Your task to perform on an android device: toggle translation in the chrome app Image 0: 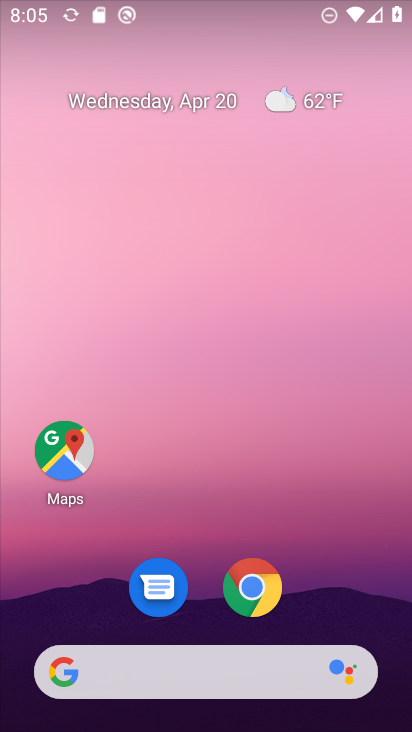
Step 0: click (250, 587)
Your task to perform on an android device: toggle translation in the chrome app Image 1: 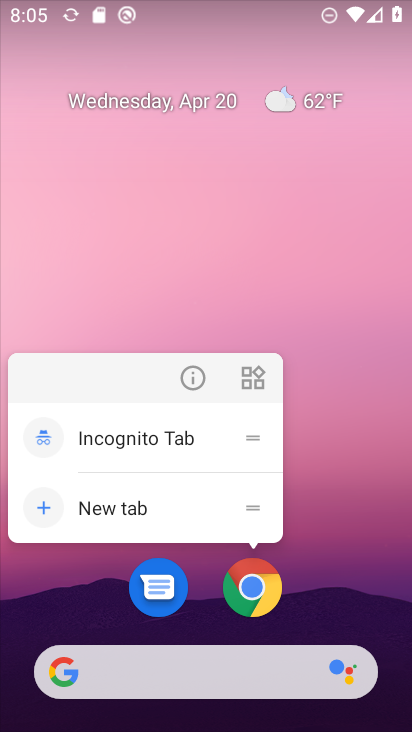
Step 1: click (250, 587)
Your task to perform on an android device: toggle translation in the chrome app Image 2: 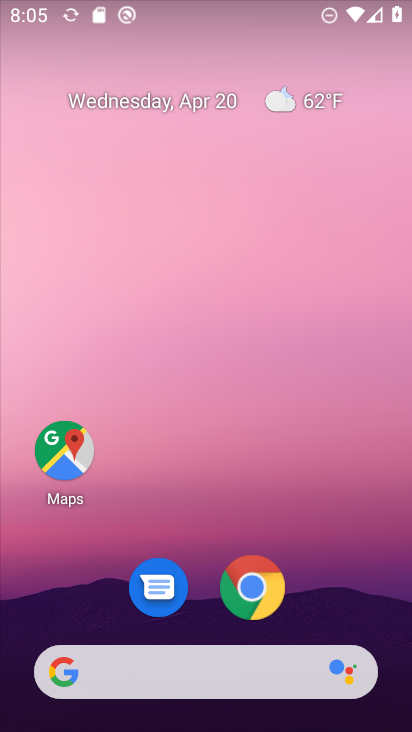
Step 2: click (250, 587)
Your task to perform on an android device: toggle translation in the chrome app Image 3: 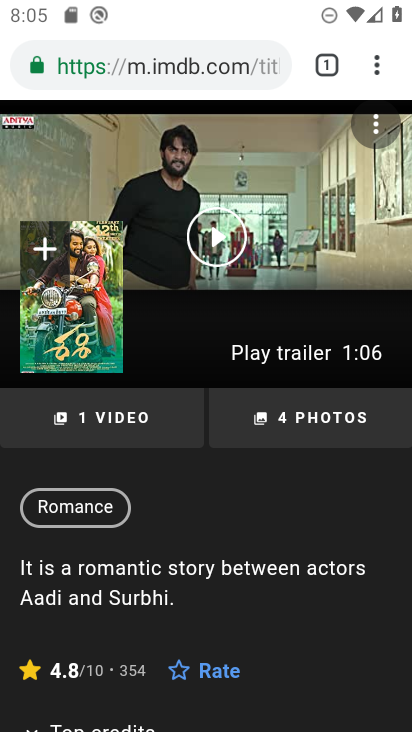
Step 3: click (384, 84)
Your task to perform on an android device: toggle translation in the chrome app Image 4: 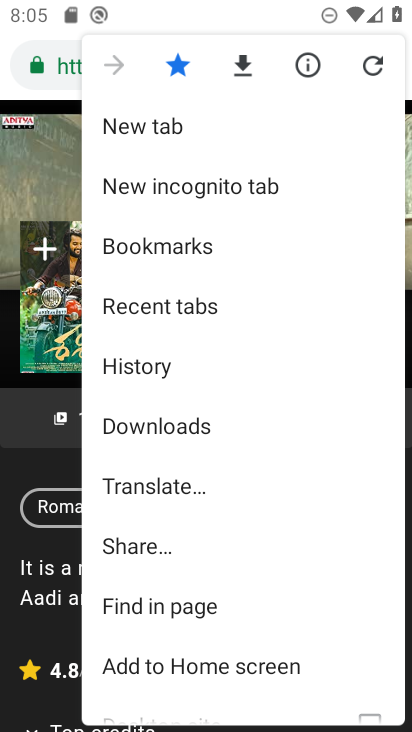
Step 4: drag from (183, 580) to (180, 141)
Your task to perform on an android device: toggle translation in the chrome app Image 5: 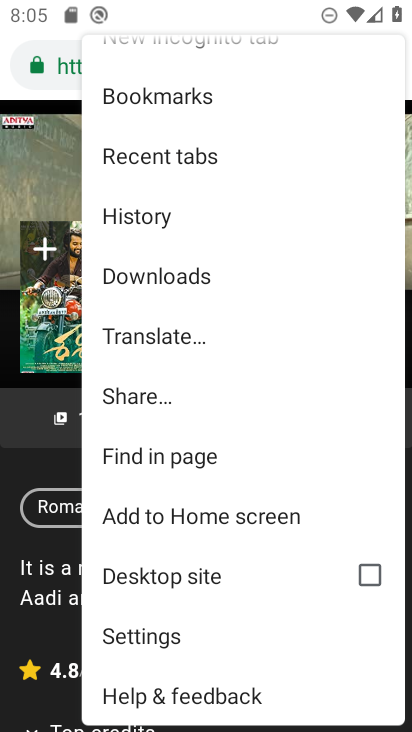
Step 5: click (156, 644)
Your task to perform on an android device: toggle translation in the chrome app Image 6: 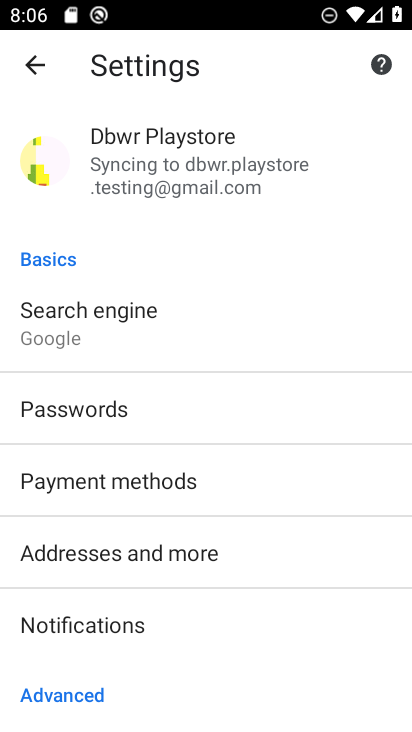
Step 6: drag from (215, 640) to (171, 197)
Your task to perform on an android device: toggle translation in the chrome app Image 7: 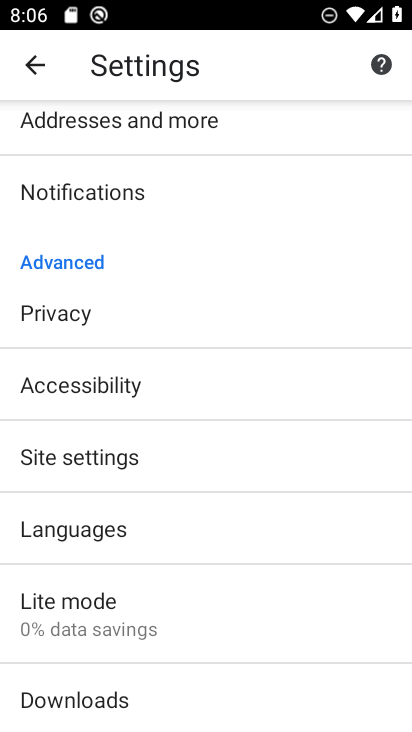
Step 7: click (115, 548)
Your task to perform on an android device: toggle translation in the chrome app Image 8: 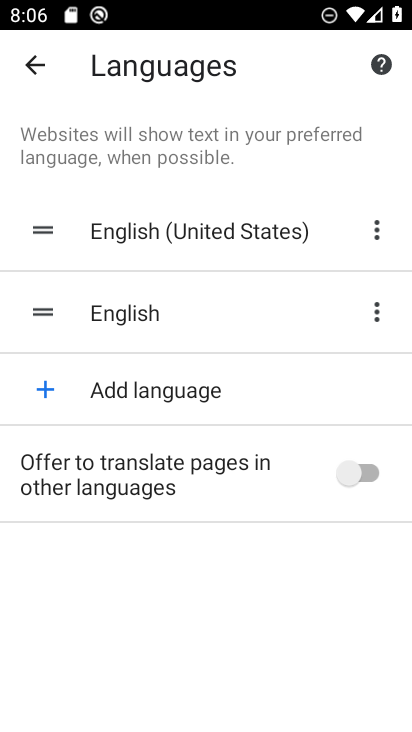
Step 8: click (353, 477)
Your task to perform on an android device: toggle translation in the chrome app Image 9: 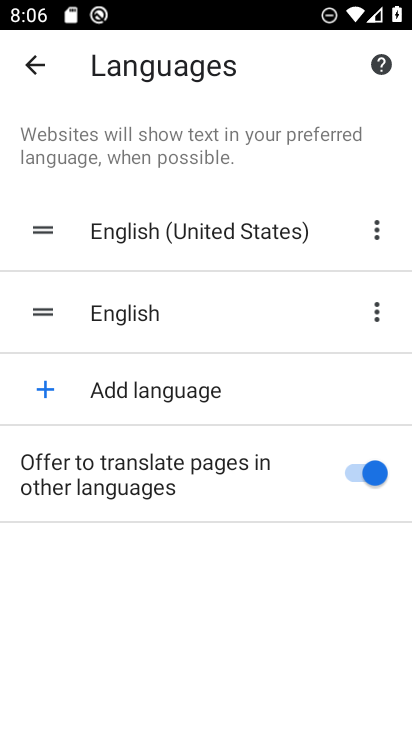
Step 9: task complete